Your task to perform on an android device: read, delete, or share a saved page in the chrome app Image 0: 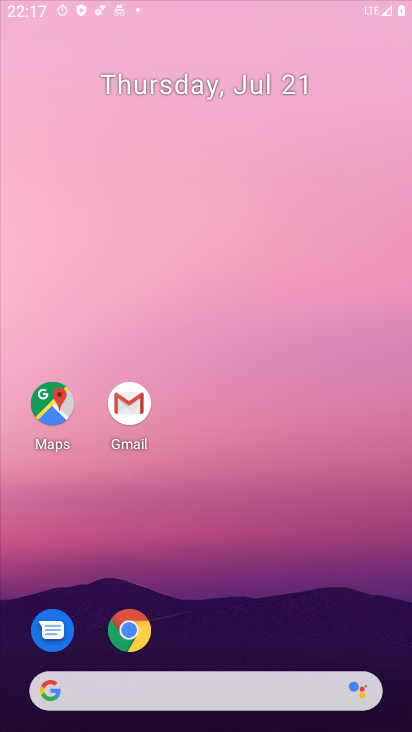
Step 0: drag from (265, 660) to (169, 110)
Your task to perform on an android device: read, delete, or share a saved page in the chrome app Image 1: 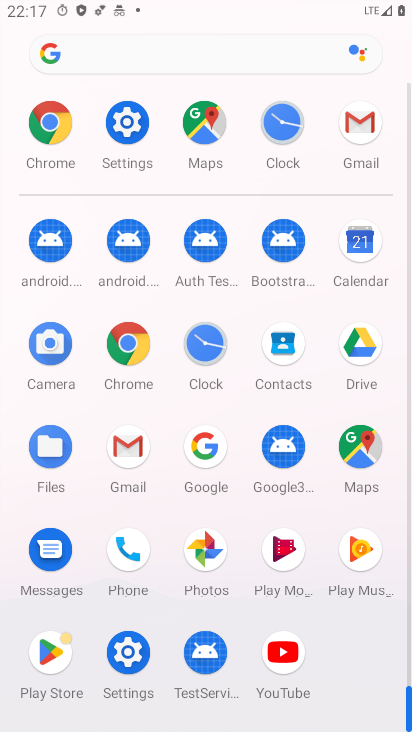
Step 1: click (133, 141)
Your task to perform on an android device: read, delete, or share a saved page in the chrome app Image 2: 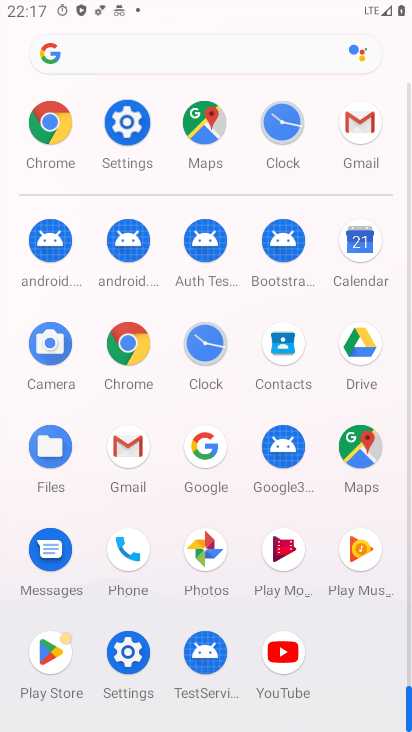
Step 2: click (129, 138)
Your task to perform on an android device: read, delete, or share a saved page in the chrome app Image 3: 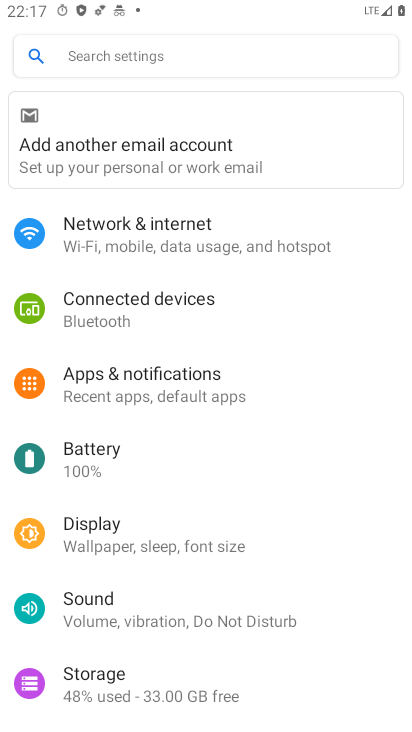
Step 3: press back button
Your task to perform on an android device: read, delete, or share a saved page in the chrome app Image 4: 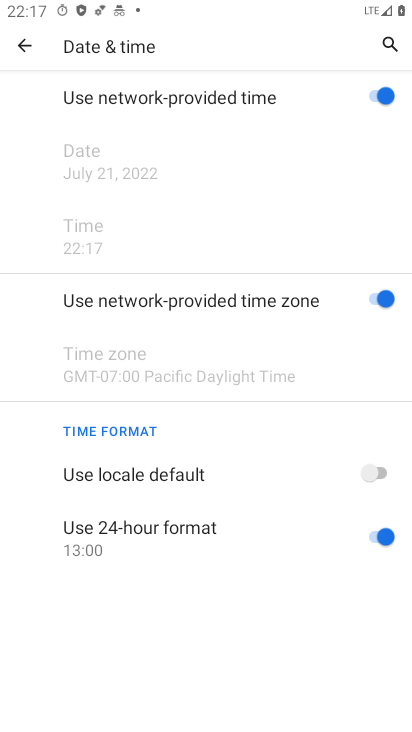
Step 4: click (8, 49)
Your task to perform on an android device: read, delete, or share a saved page in the chrome app Image 5: 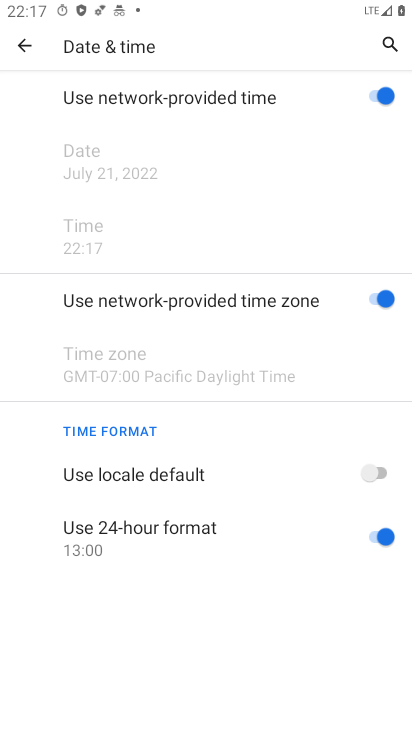
Step 5: click (9, 49)
Your task to perform on an android device: read, delete, or share a saved page in the chrome app Image 6: 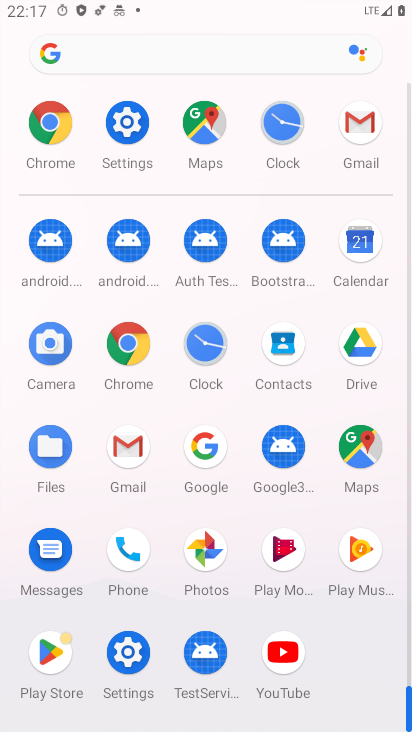
Step 6: click (57, 124)
Your task to perform on an android device: read, delete, or share a saved page in the chrome app Image 7: 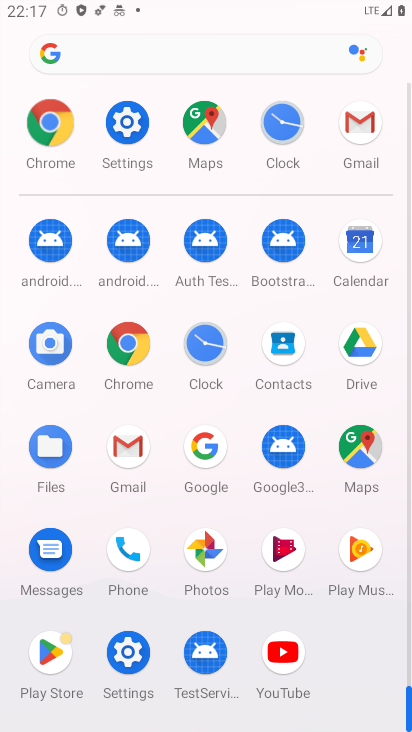
Step 7: click (64, 123)
Your task to perform on an android device: read, delete, or share a saved page in the chrome app Image 8: 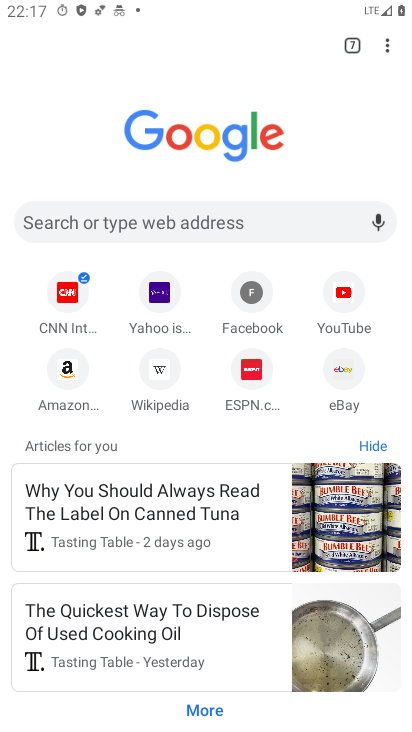
Step 8: drag from (378, 36) to (215, 302)
Your task to perform on an android device: read, delete, or share a saved page in the chrome app Image 9: 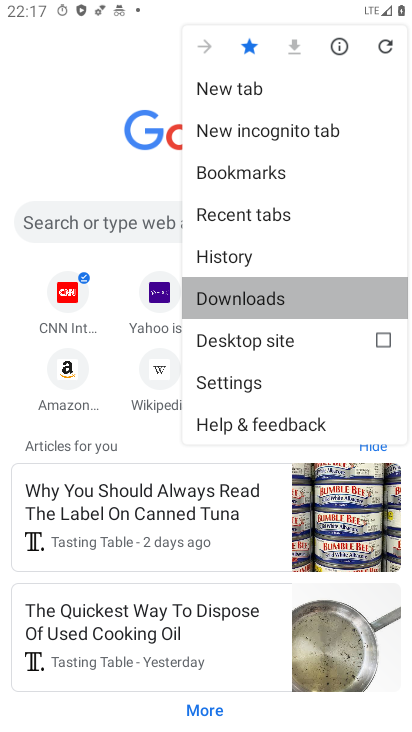
Step 9: click (209, 300)
Your task to perform on an android device: read, delete, or share a saved page in the chrome app Image 10: 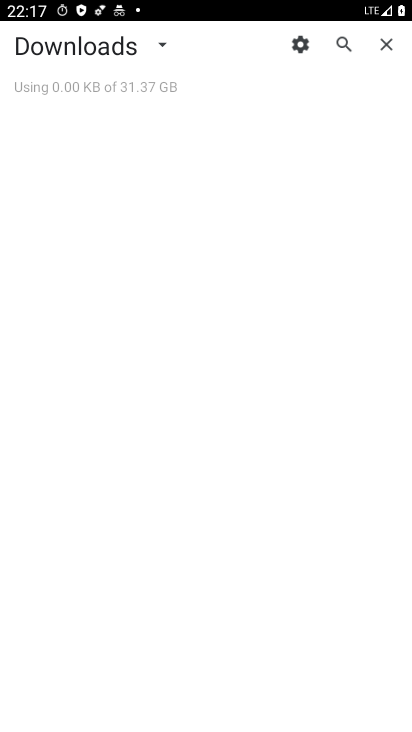
Step 10: click (158, 41)
Your task to perform on an android device: read, delete, or share a saved page in the chrome app Image 11: 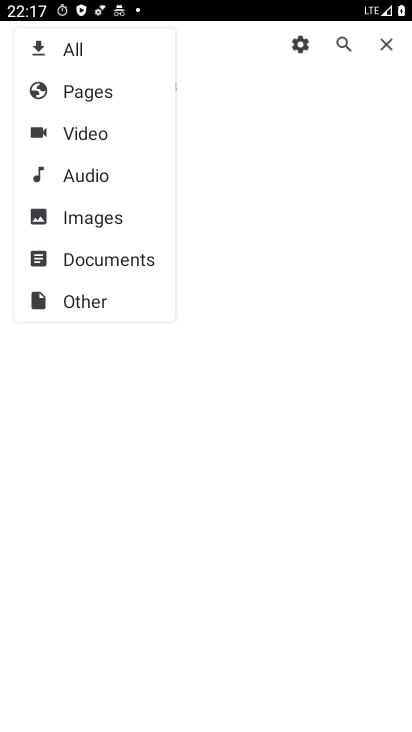
Step 11: click (93, 85)
Your task to perform on an android device: read, delete, or share a saved page in the chrome app Image 12: 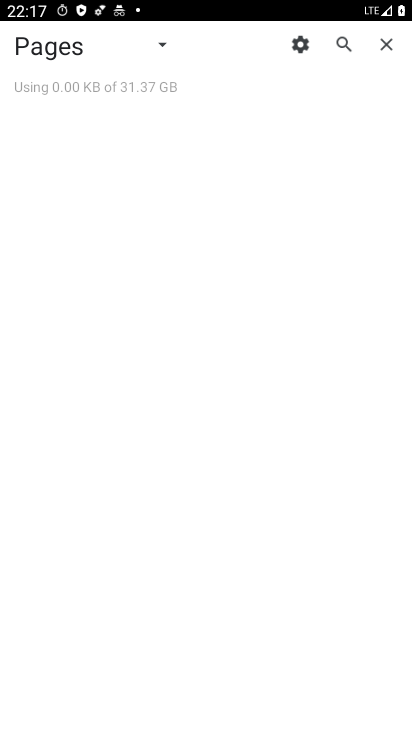
Step 12: task complete